Your task to perform on an android device: Open Google Chrome and click the shortcut for Amazon.com Image 0: 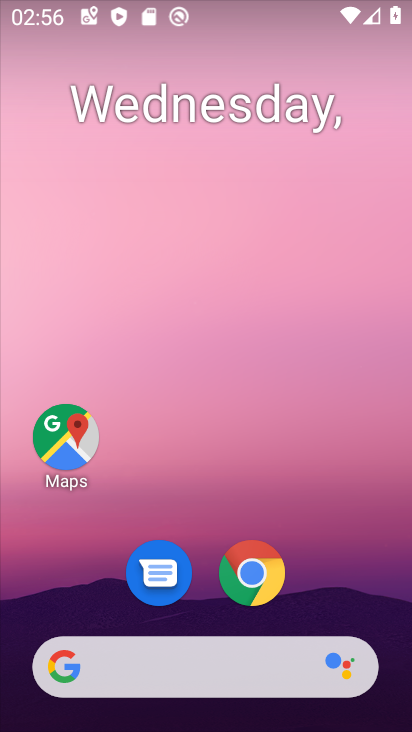
Step 0: click (253, 574)
Your task to perform on an android device: Open Google Chrome and click the shortcut for Amazon.com Image 1: 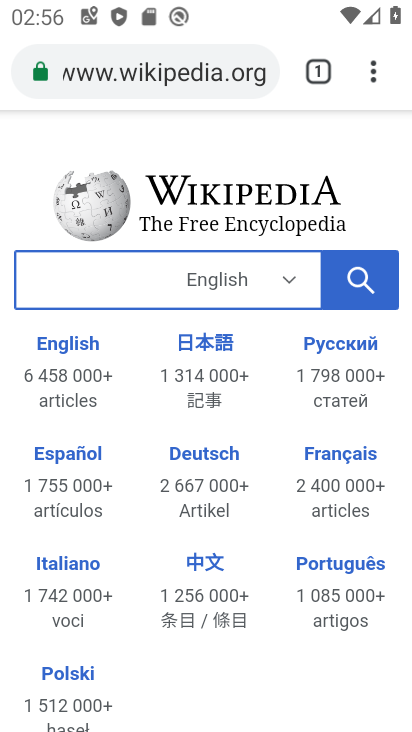
Step 1: click (229, 73)
Your task to perform on an android device: Open Google Chrome and click the shortcut for Amazon.com Image 2: 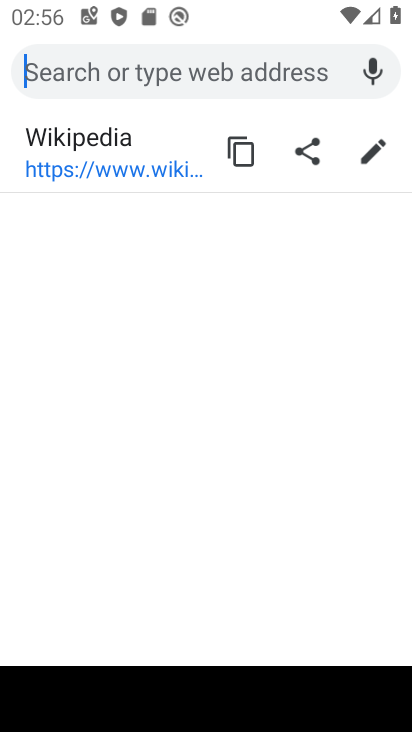
Step 2: click (233, 56)
Your task to perform on an android device: Open Google Chrome and click the shortcut for Amazon.com Image 3: 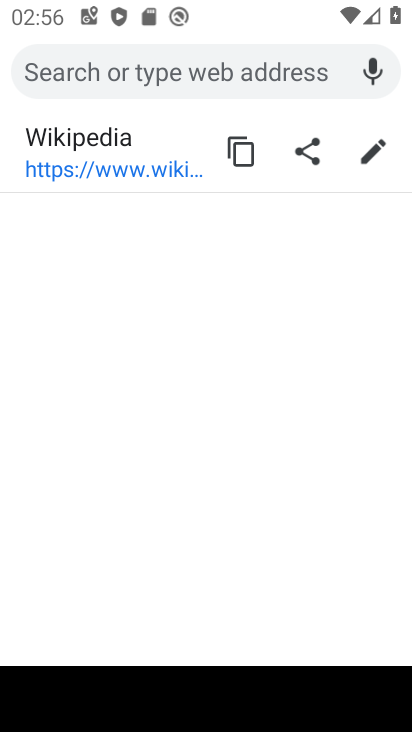
Step 3: type "Amazon.com"
Your task to perform on an android device: Open Google Chrome and click the shortcut for Amazon.com Image 4: 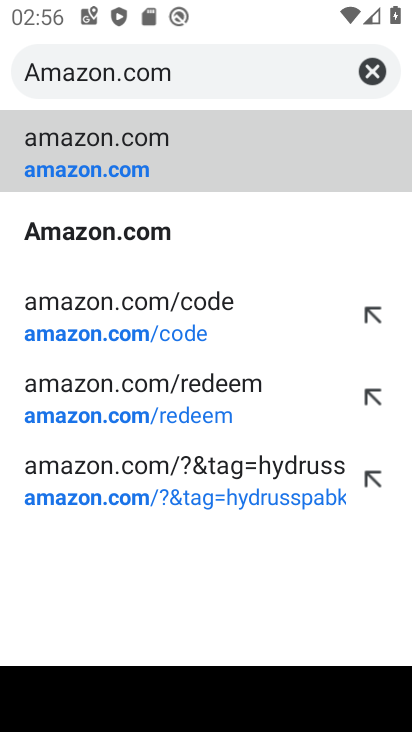
Step 4: click (146, 236)
Your task to perform on an android device: Open Google Chrome and click the shortcut for Amazon.com Image 5: 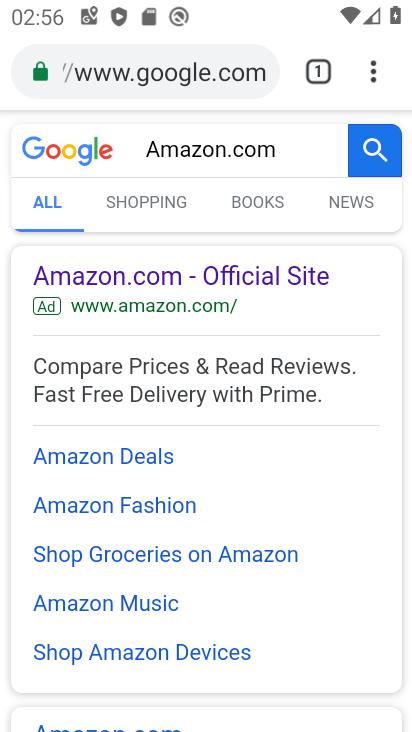
Step 5: click (139, 274)
Your task to perform on an android device: Open Google Chrome and click the shortcut for Amazon.com Image 6: 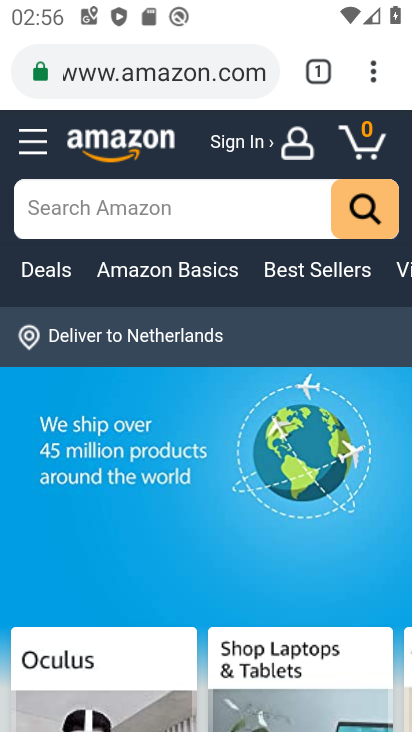
Step 6: click (372, 71)
Your task to perform on an android device: Open Google Chrome and click the shortcut for Amazon.com Image 7: 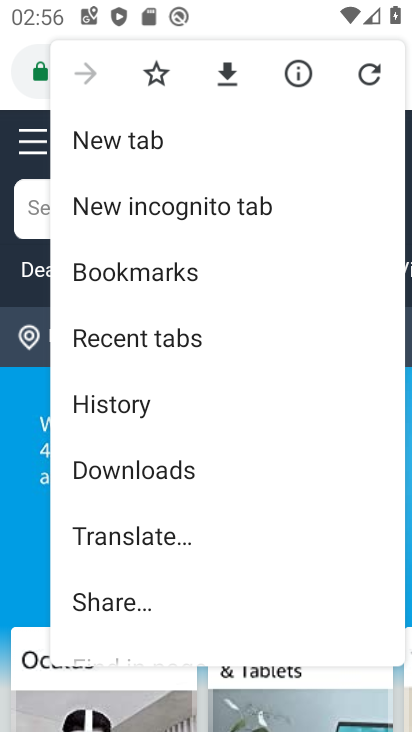
Step 7: drag from (204, 566) to (308, 395)
Your task to perform on an android device: Open Google Chrome and click the shortcut for Amazon.com Image 8: 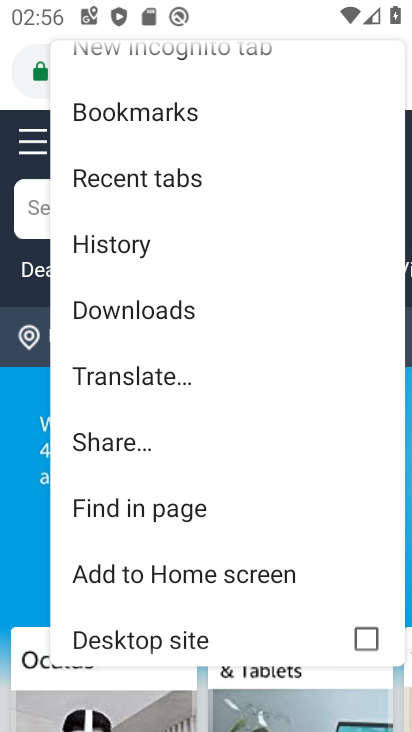
Step 8: click (200, 582)
Your task to perform on an android device: Open Google Chrome and click the shortcut for Amazon.com Image 9: 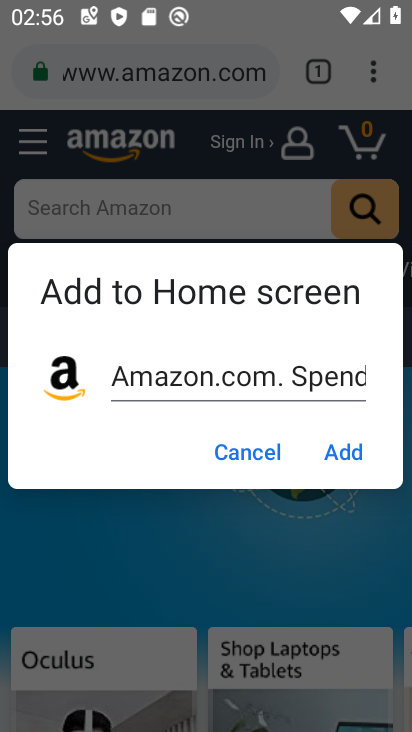
Step 9: click (350, 455)
Your task to perform on an android device: Open Google Chrome and click the shortcut for Amazon.com Image 10: 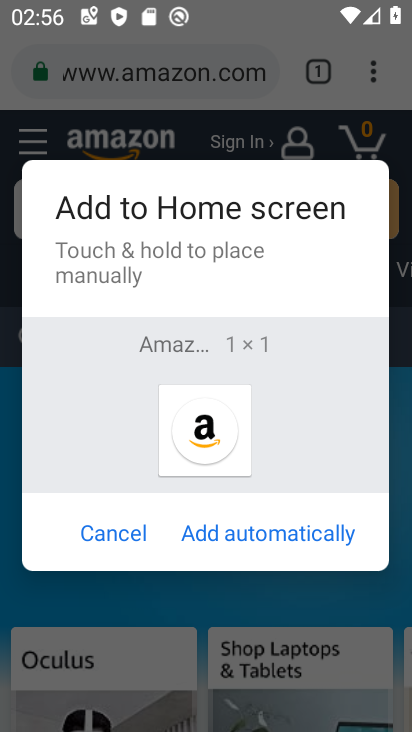
Step 10: click (317, 526)
Your task to perform on an android device: Open Google Chrome and click the shortcut for Amazon.com Image 11: 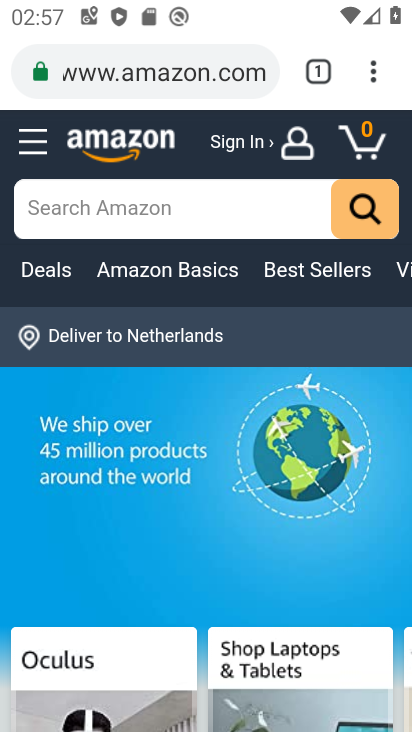
Step 11: task complete